Your task to perform on an android device: change keyboard looks Image 0: 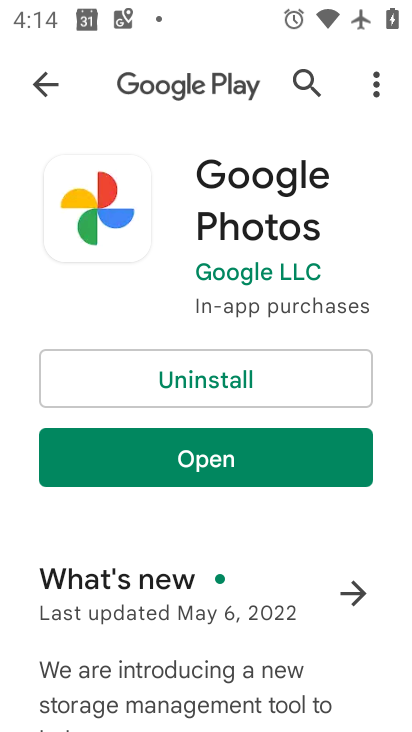
Step 0: press home button
Your task to perform on an android device: change keyboard looks Image 1: 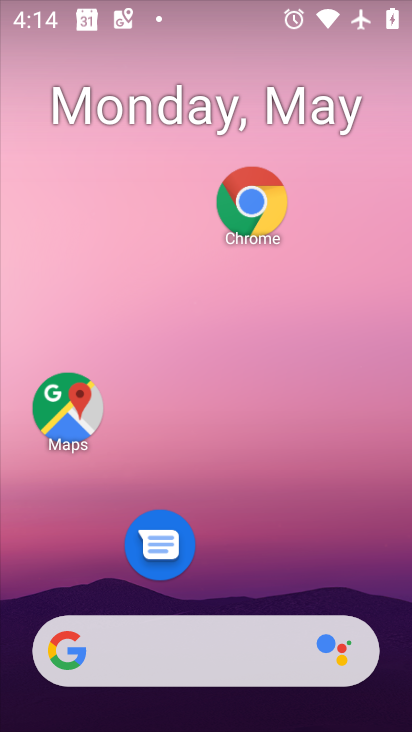
Step 1: drag from (276, 573) to (356, 72)
Your task to perform on an android device: change keyboard looks Image 2: 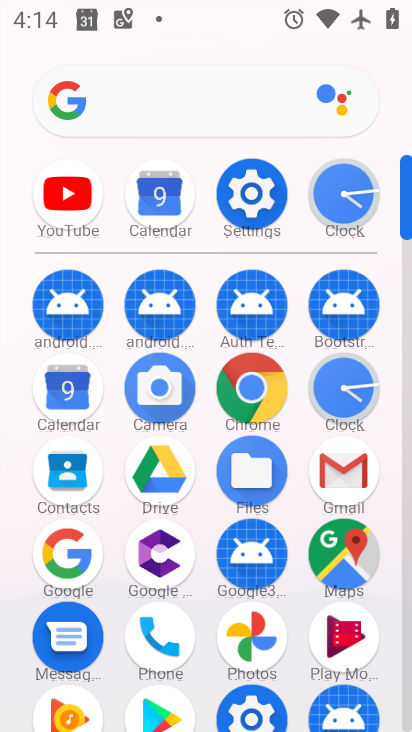
Step 2: click (280, 199)
Your task to perform on an android device: change keyboard looks Image 3: 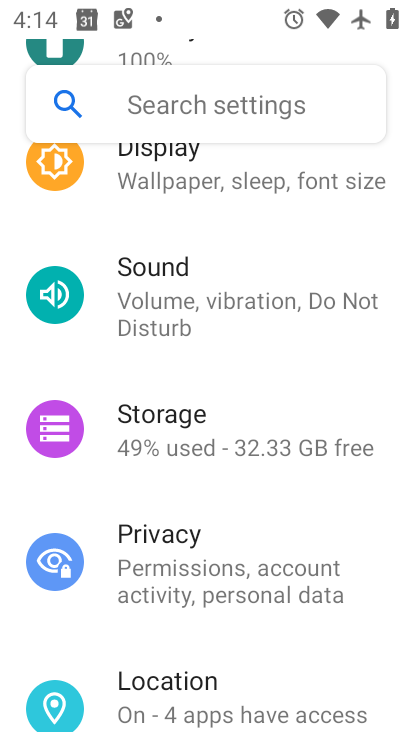
Step 3: drag from (247, 613) to (307, 206)
Your task to perform on an android device: change keyboard looks Image 4: 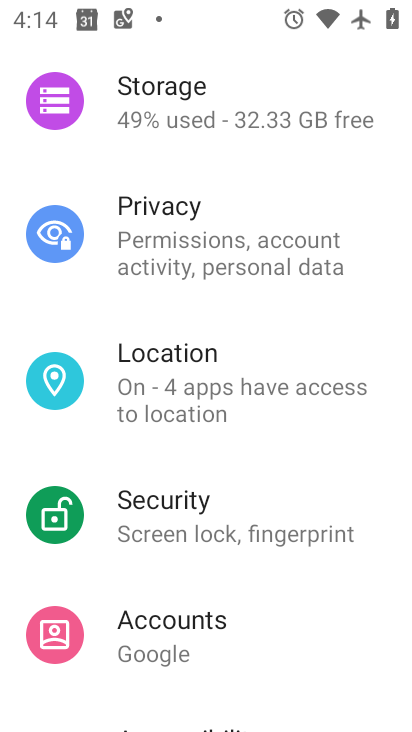
Step 4: drag from (284, 545) to (307, 193)
Your task to perform on an android device: change keyboard looks Image 5: 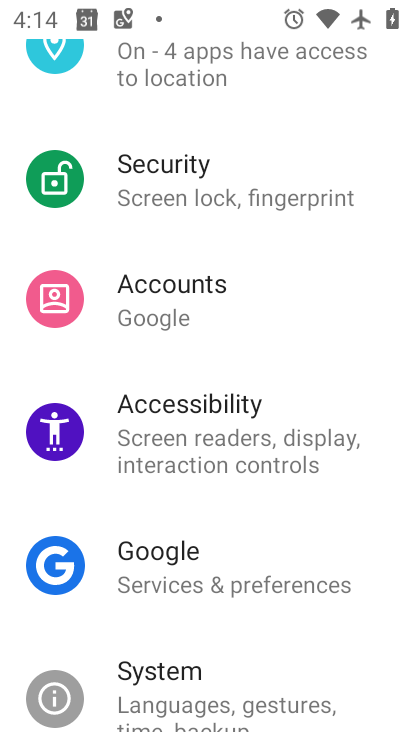
Step 5: drag from (186, 637) to (206, 295)
Your task to perform on an android device: change keyboard looks Image 6: 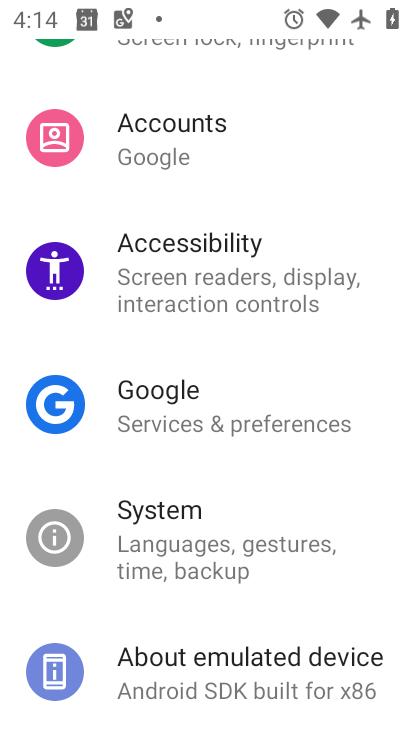
Step 6: drag from (228, 572) to (237, 335)
Your task to perform on an android device: change keyboard looks Image 7: 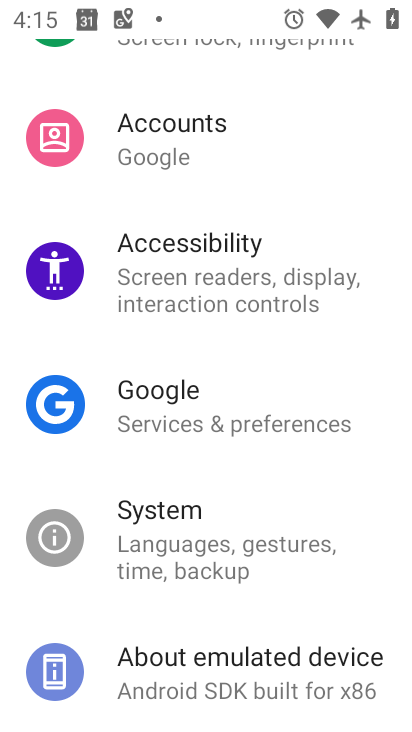
Step 7: click (159, 547)
Your task to perform on an android device: change keyboard looks Image 8: 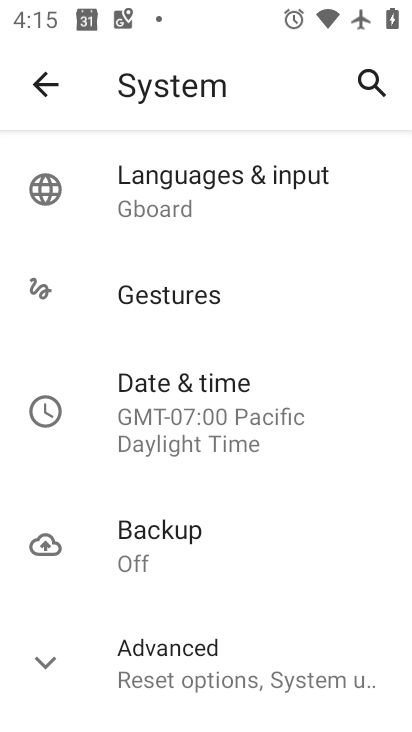
Step 8: click (163, 214)
Your task to perform on an android device: change keyboard looks Image 9: 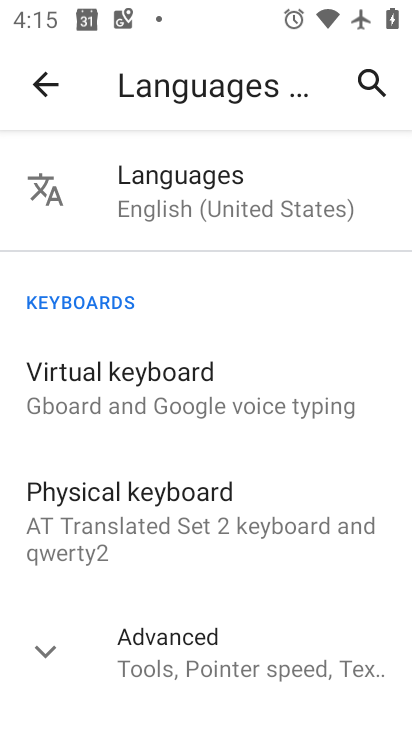
Step 9: click (116, 358)
Your task to perform on an android device: change keyboard looks Image 10: 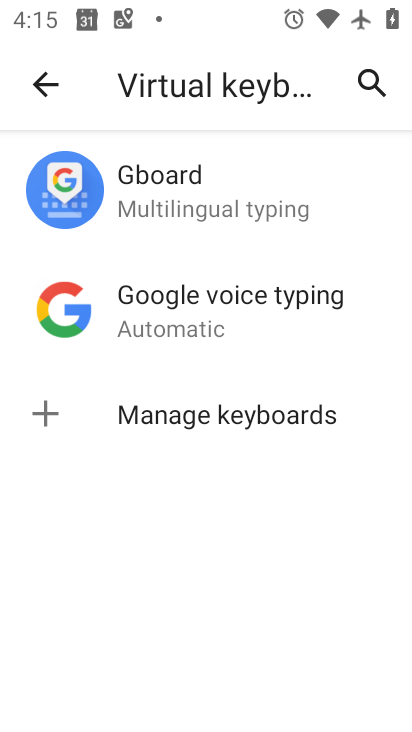
Step 10: click (142, 194)
Your task to perform on an android device: change keyboard looks Image 11: 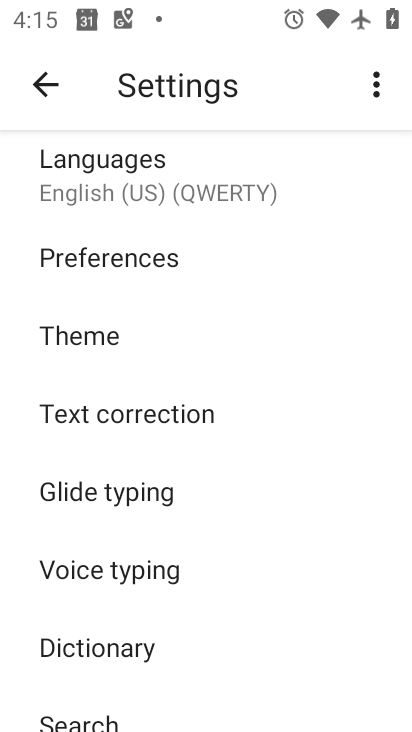
Step 11: click (109, 339)
Your task to perform on an android device: change keyboard looks Image 12: 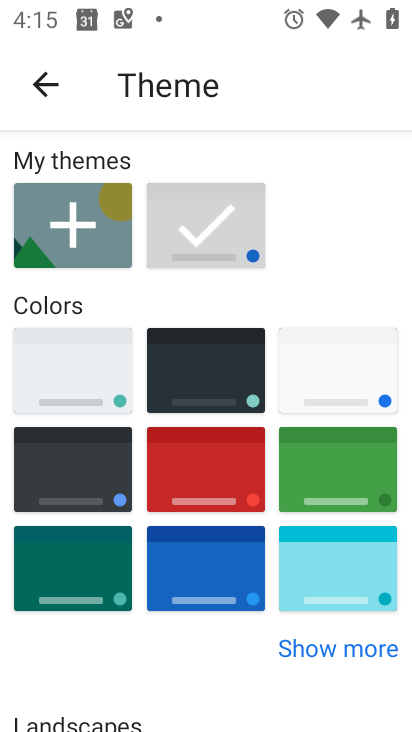
Step 12: click (341, 381)
Your task to perform on an android device: change keyboard looks Image 13: 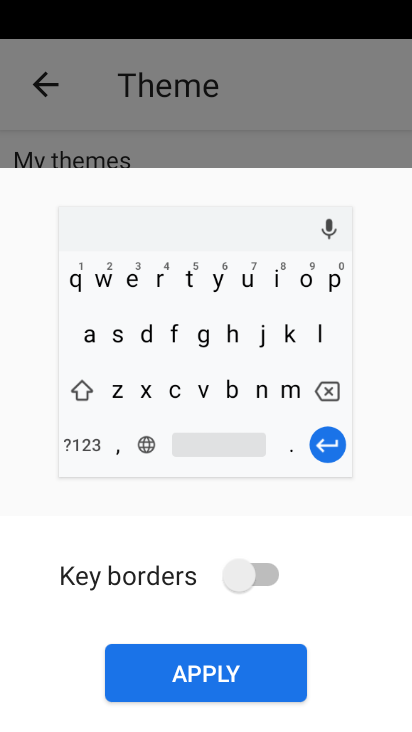
Step 13: click (281, 653)
Your task to perform on an android device: change keyboard looks Image 14: 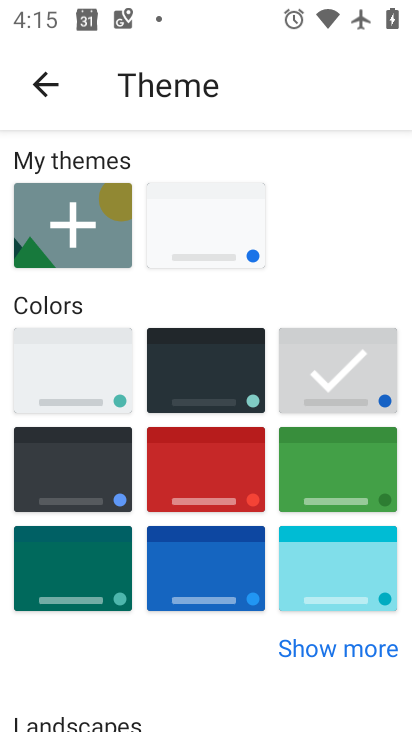
Step 14: task complete